Your task to perform on an android device: Show the shopping cart on bestbuy. Image 0: 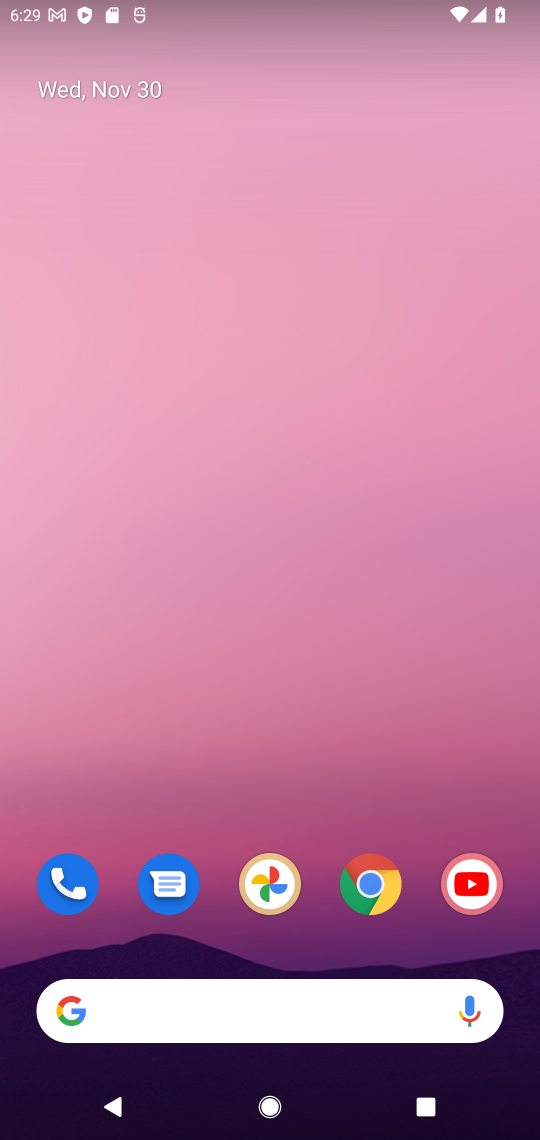
Step 0: click (382, 886)
Your task to perform on an android device: Show the shopping cart on bestbuy. Image 1: 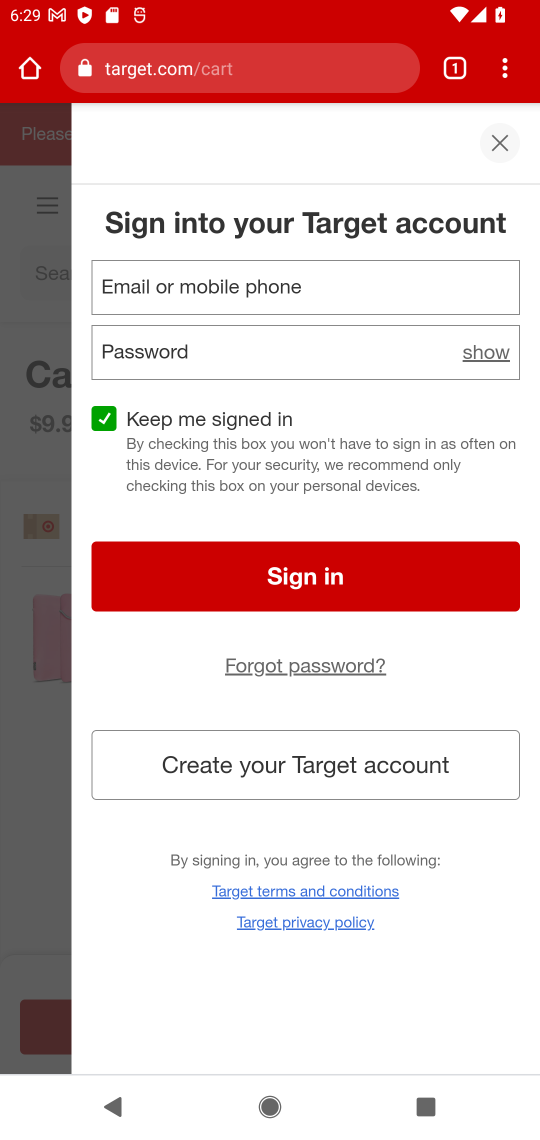
Step 1: click (195, 60)
Your task to perform on an android device: Show the shopping cart on bestbuy. Image 2: 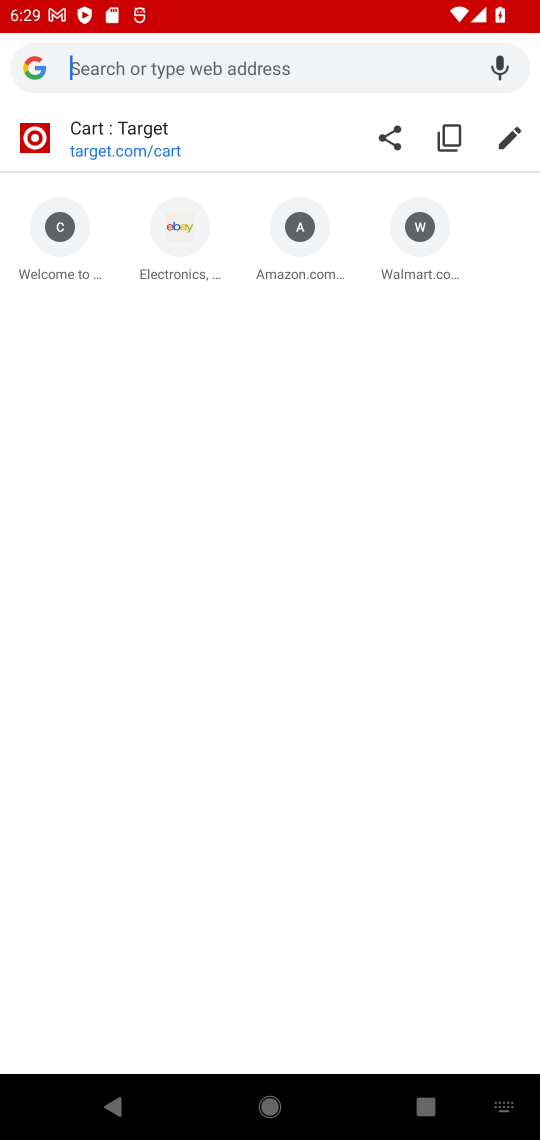
Step 2: type "bestbuy.com"
Your task to perform on an android device: Show the shopping cart on bestbuy. Image 3: 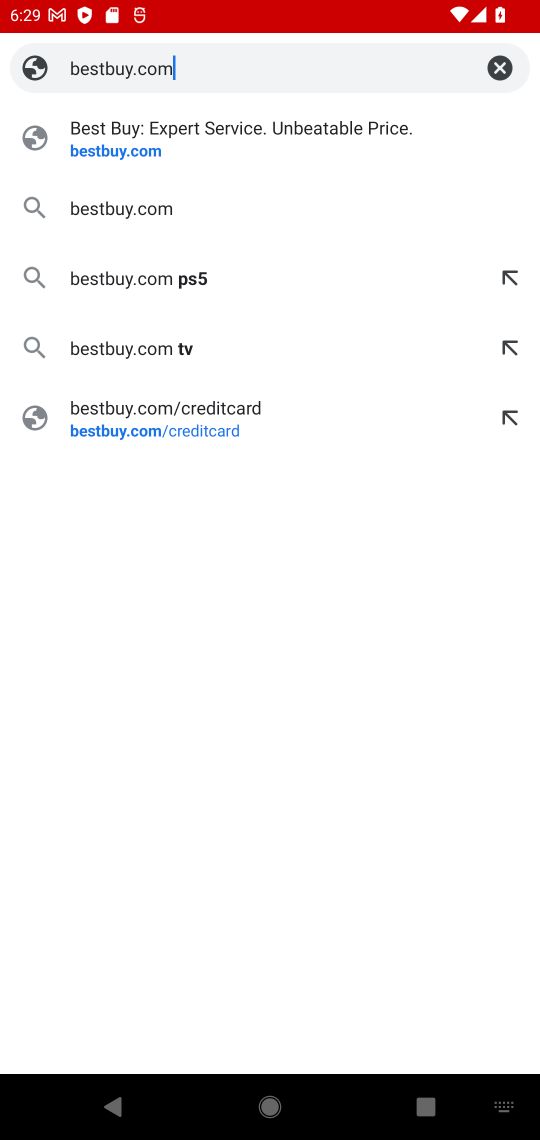
Step 3: click (87, 156)
Your task to perform on an android device: Show the shopping cart on bestbuy. Image 4: 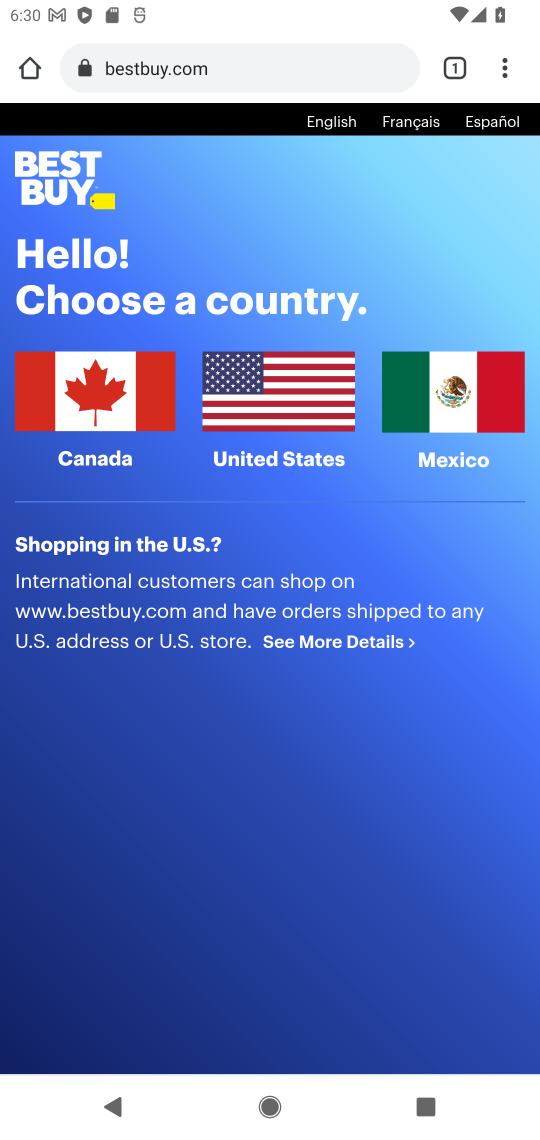
Step 4: click (251, 410)
Your task to perform on an android device: Show the shopping cart on bestbuy. Image 5: 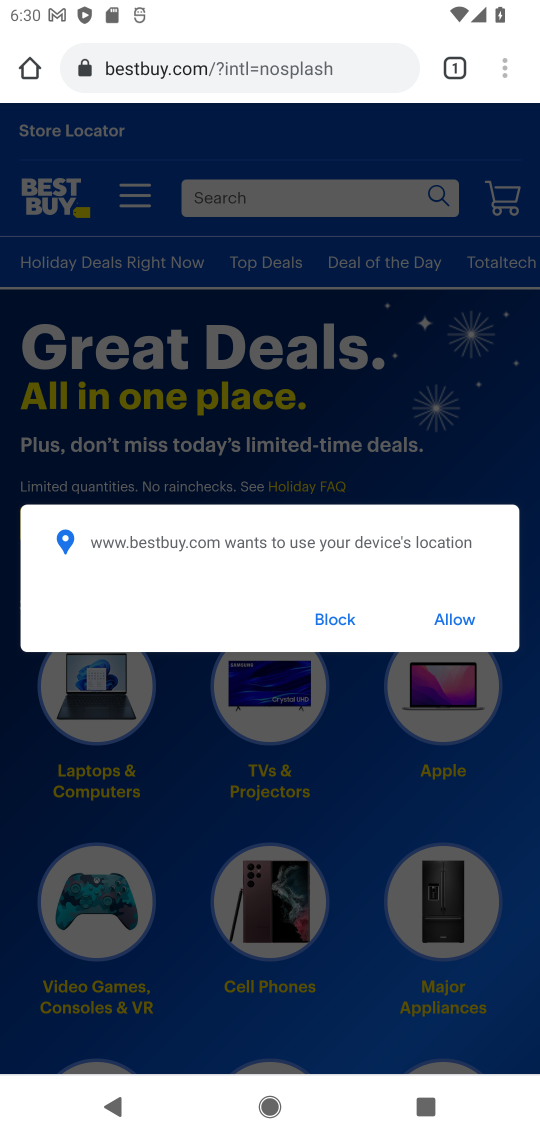
Step 5: click (333, 628)
Your task to perform on an android device: Show the shopping cart on bestbuy. Image 6: 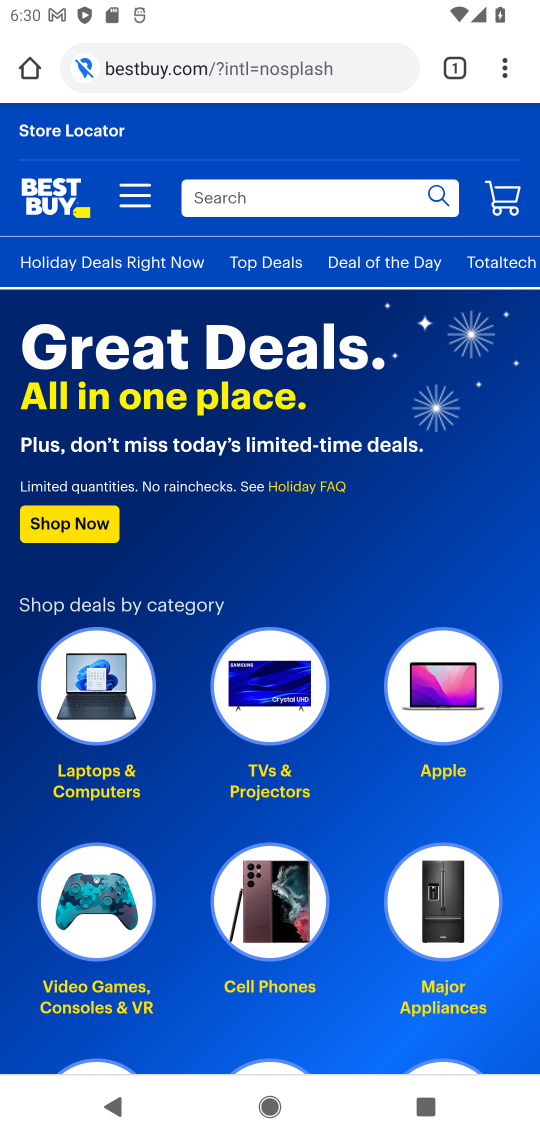
Step 6: click (507, 209)
Your task to perform on an android device: Show the shopping cart on bestbuy. Image 7: 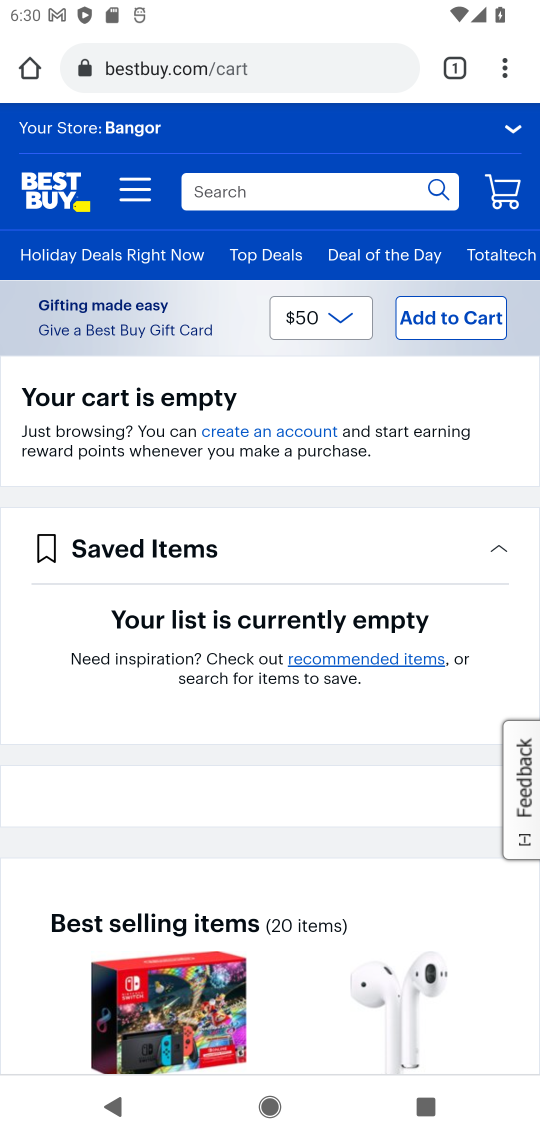
Step 7: task complete